Your task to perform on an android device: Go to eBay Image 0: 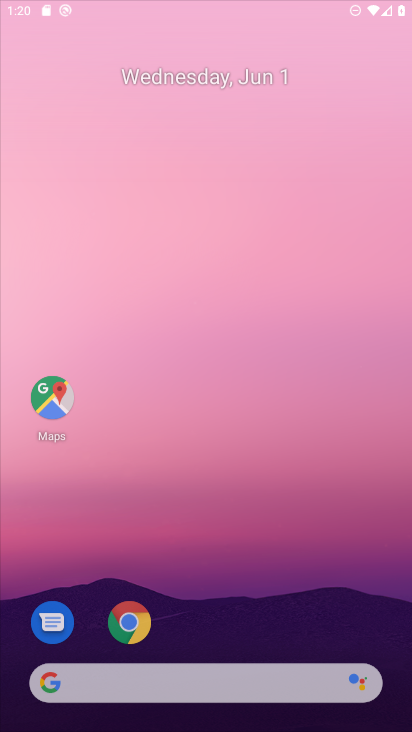
Step 0: press home button
Your task to perform on an android device: Go to eBay Image 1: 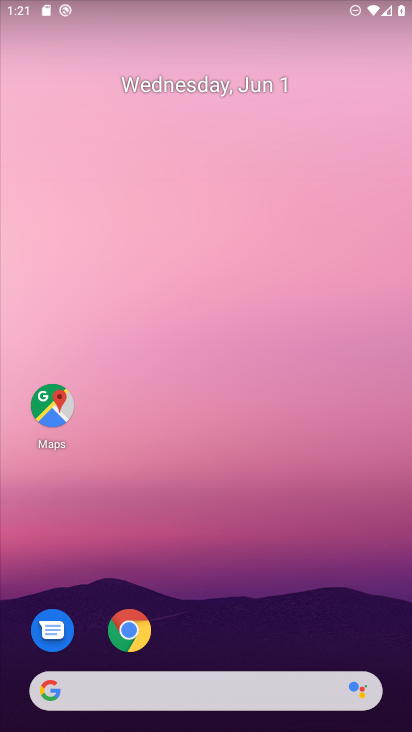
Step 1: click (53, 683)
Your task to perform on an android device: Go to eBay Image 2: 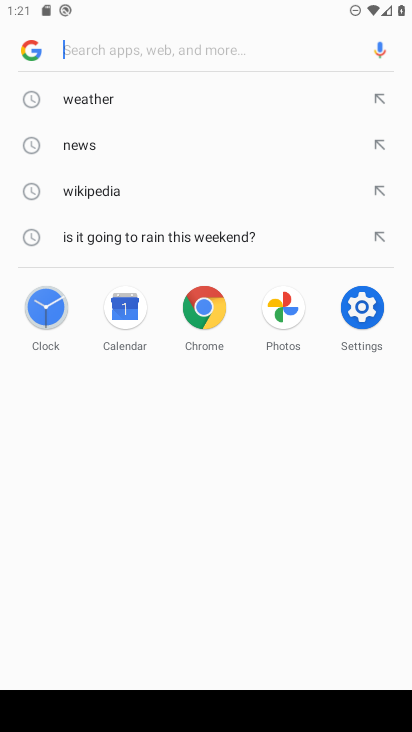
Step 2: click (263, 548)
Your task to perform on an android device: Go to eBay Image 3: 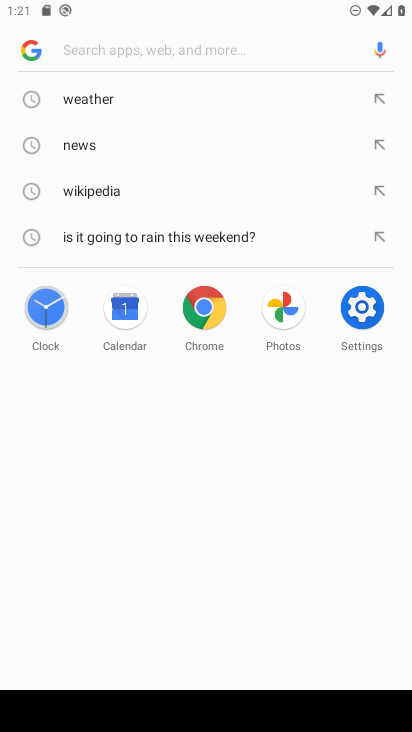
Step 3: type "Wikipedia"
Your task to perform on an android device: Go to eBay Image 4: 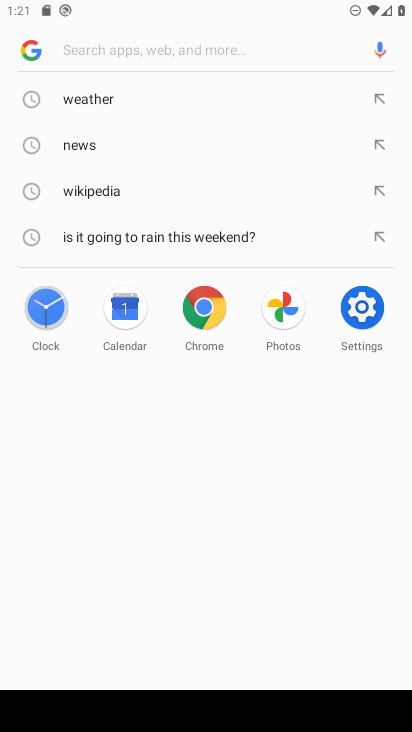
Step 4: click (180, 50)
Your task to perform on an android device: Go to eBay Image 5: 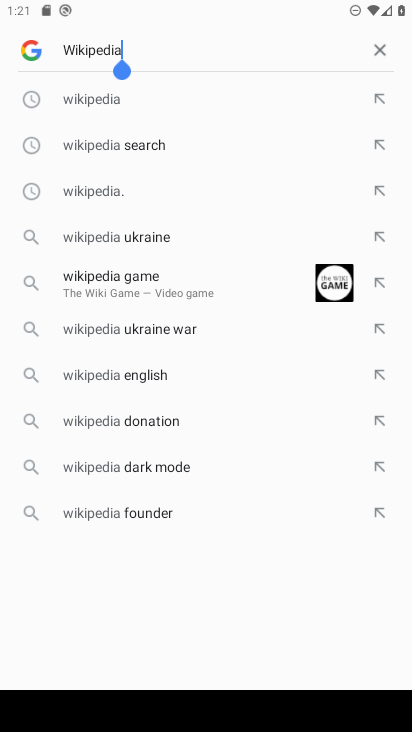
Step 5: click (383, 51)
Your task to perform on an android device: Go to eBay Image 6: 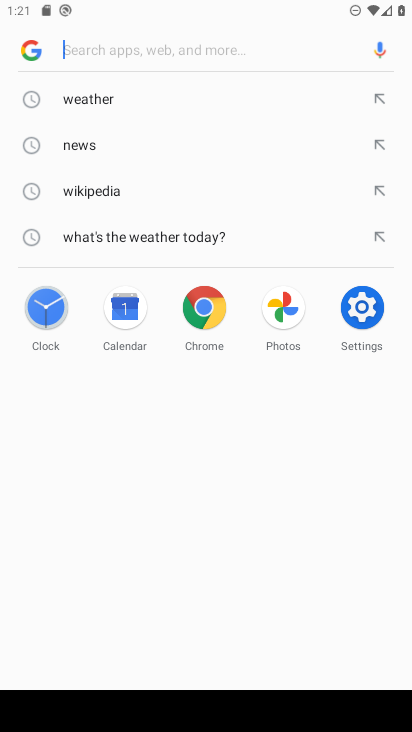
Step 6: type "eBay"
Your task to perform on an android device: Go to eBay Image 7: 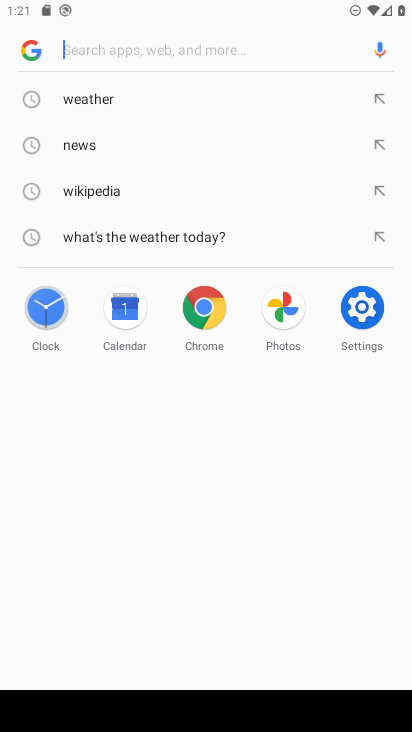
Step 7: click (148, 54)
Your task to perform on an android device: Go to eBay Image 8: 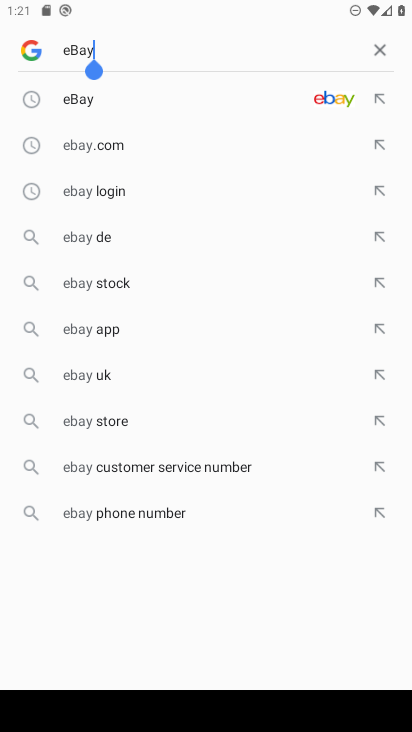
Step 8: click (90, 105)
Your task to perform on an android device: Go to eBay Image 9: 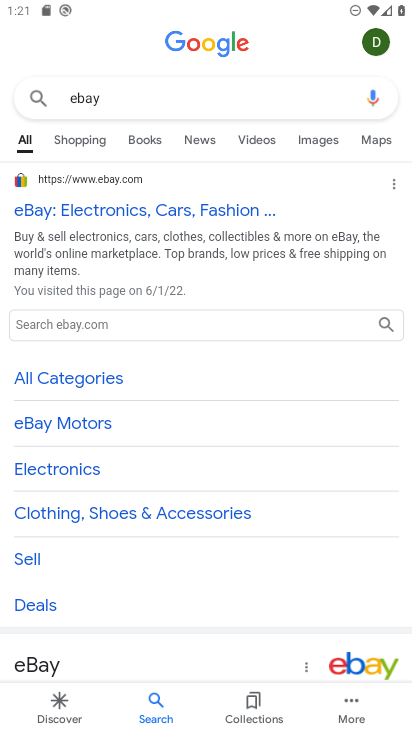
Step 9: click (152, 209)
Your task to perform on an android device: Go to eBay Image 10: 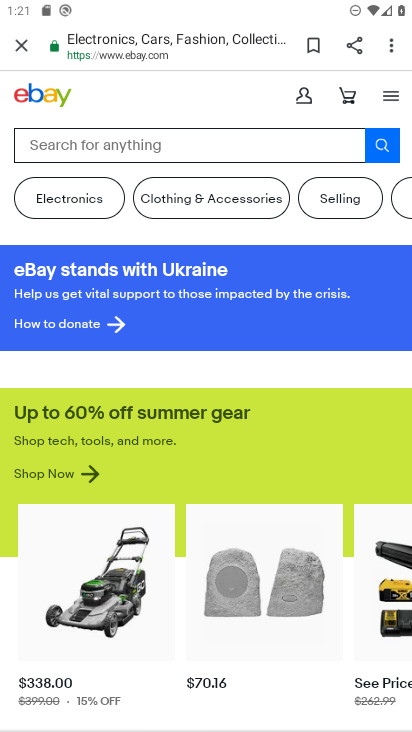
Step 10: task complete